Your task to perform on an android device: Show me popular games on the Play Store Image 0: 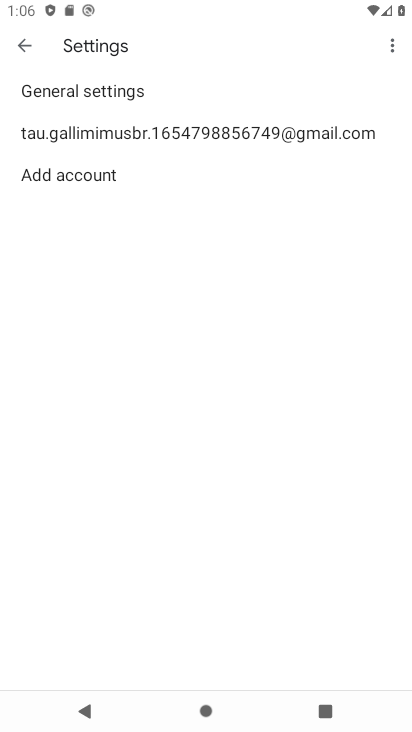
Step 0: press home button
Your task to perform on an android device: Show me popular games on the Play Store Image 1: 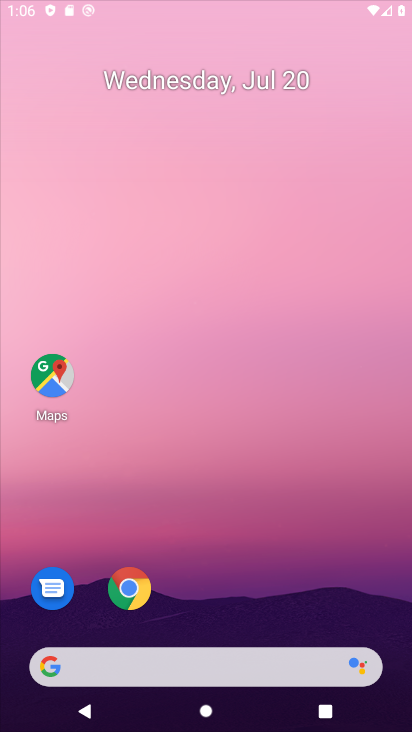
Step 1: drag from (371, 569) to (187, 78)
Your task to perform on an android device: Show me popular games on the Play Store Image 2: 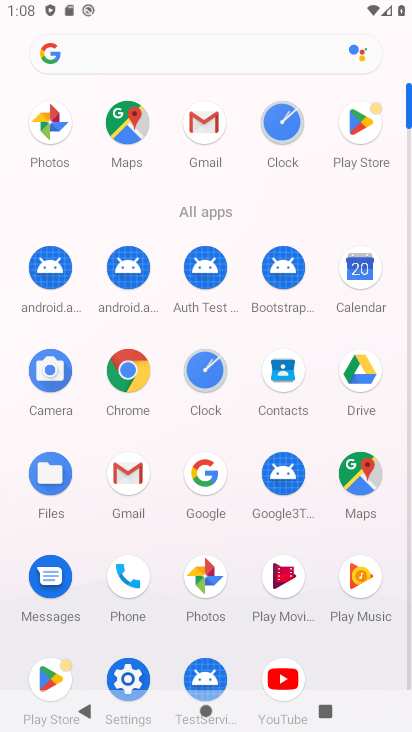
Step 2: click (40, 649)
Your task to perform on an android device: Show me popular games on the Play Store Image 3: 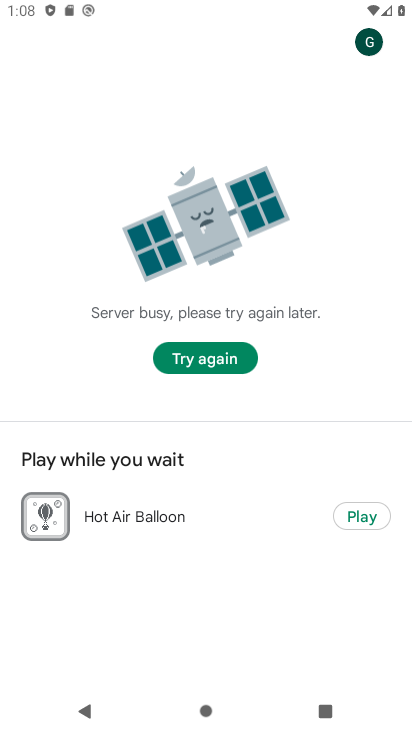
Step 3: click (207, 357)
Your task to perform on an android device: Show me popular games on the Play Store Image 4: 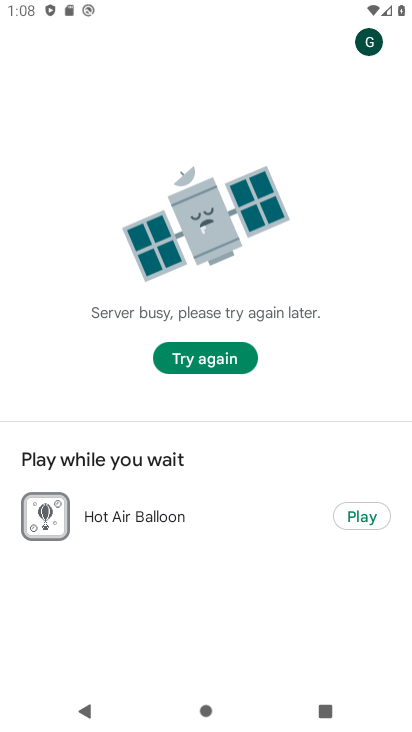
Step 4: task complete